Your task to perform on an android device: make emails show in primary in the gmail app Image 0: 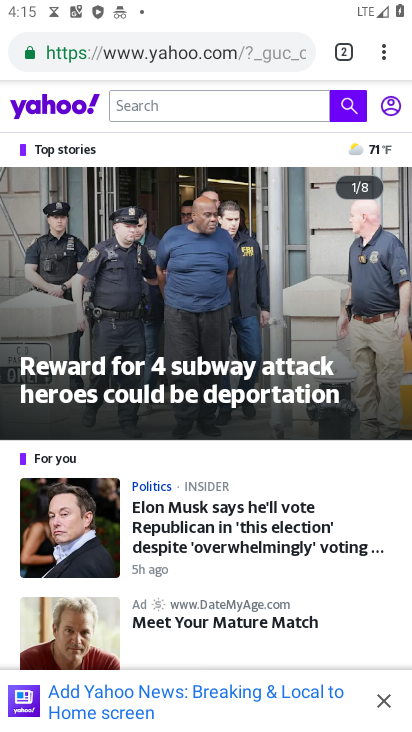
Step 0: press back button
Your task to perform on an android device: make emails show in primary in the gmail app Image 1: 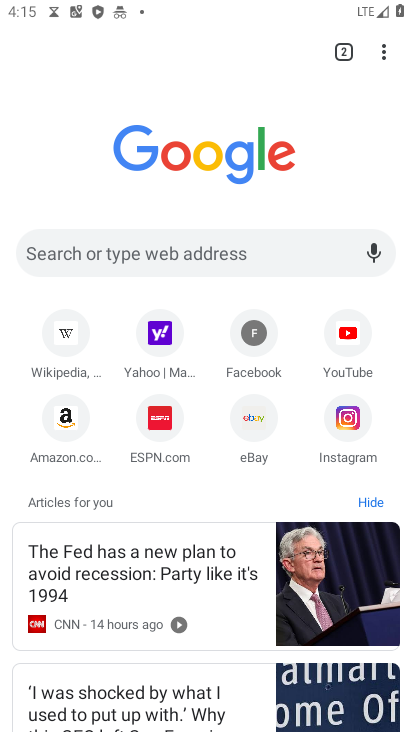
Step 1: press home button
Your task to perform on an android device: make emails show in primary in the gmail app Image 2: 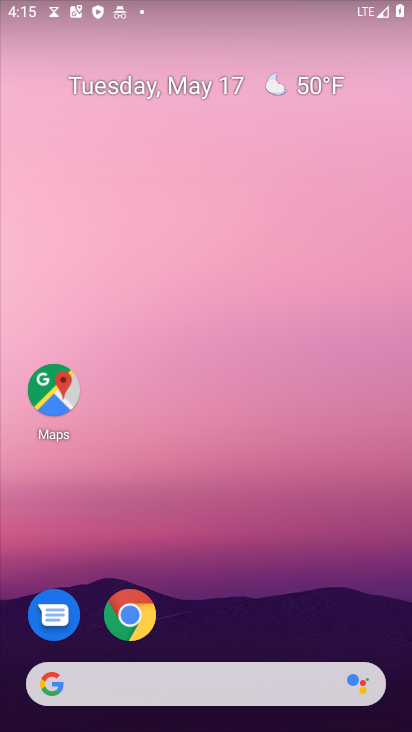
Step 2: drag from (277, 568) to (181, 184)
Your task to perform on an android device: make emails show in primary in the gmail app Image 3: 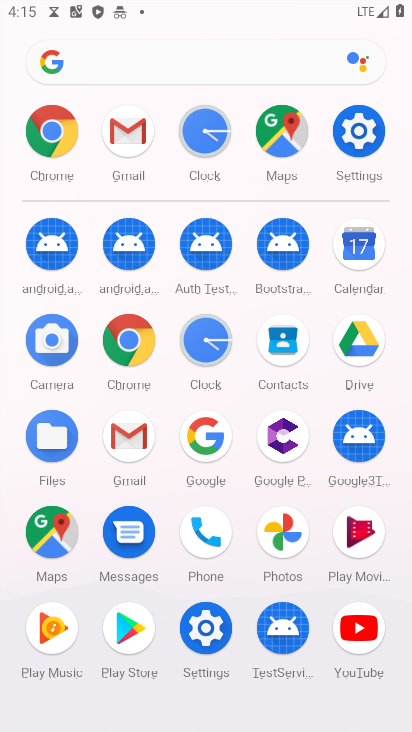
Step 3: click (128, 437)
Your task to perform on an android device: make emails show in primary in the gmail app Image 4: 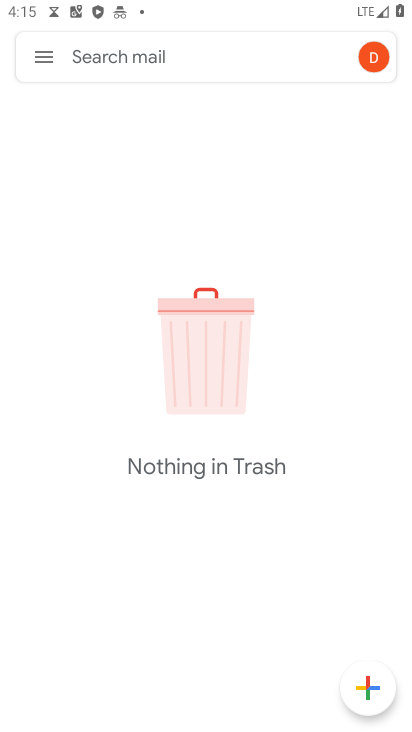
Step 4: click (36, 49)
Your task to perform on an android device: make emails show in primary in the gmail app Image 5: 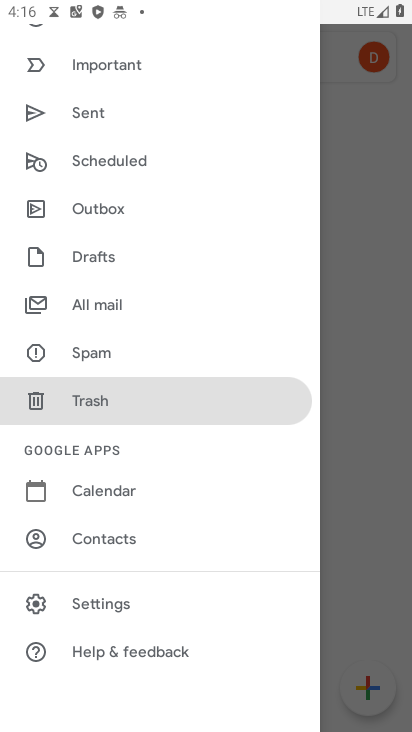
Step 5: click (99, 612)
Your task to perform on an android device: make emails show in primary in the gmail app Image 6: 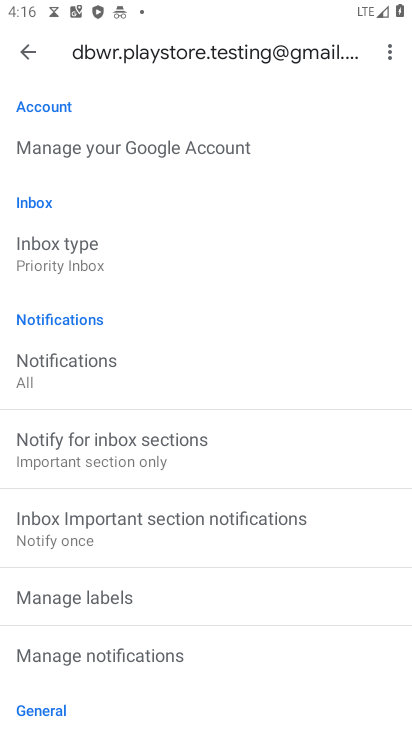
Step 6: click (57, 254)
Your task to perform on an android device: make emails show in primary in the gmail app Image 7: 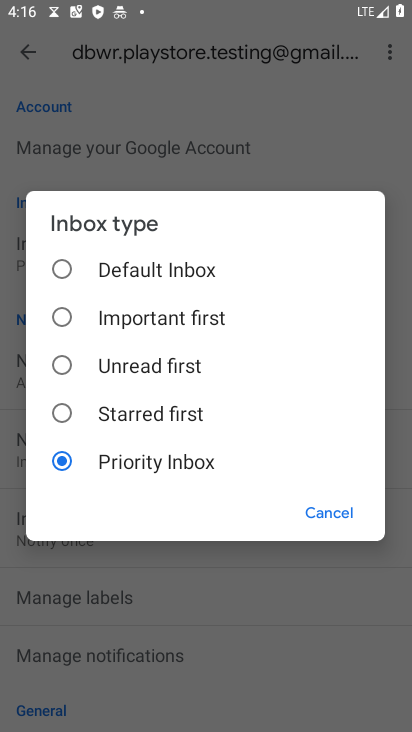
Step 7: click (65, 274)
Your task to perform on an android device: make emails show in primary in the gmail app Image 8: 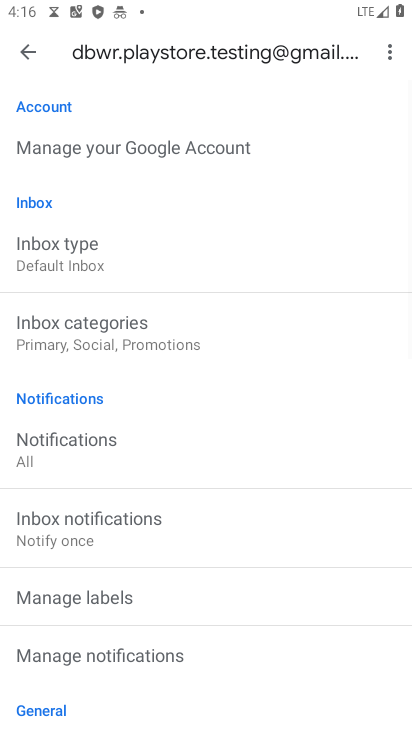
Step 8: click (82, 334)
Your task to perform on an android device: make emails show in primary in the gmail app Image 9: 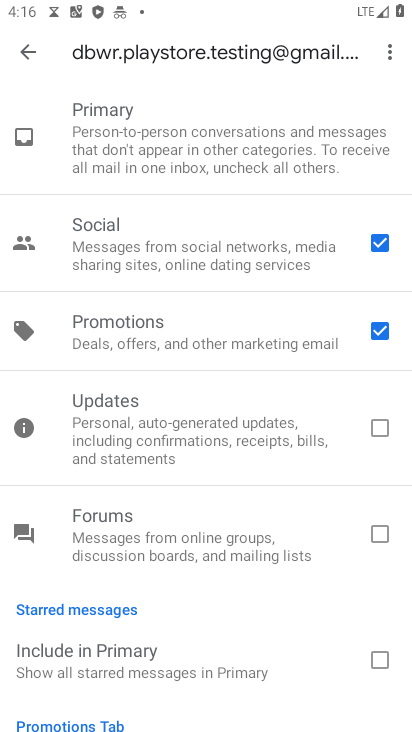
Step 9: click (105, 148)
Your task to perform on an android device: make emails show in primary in the gmail app Image 10: 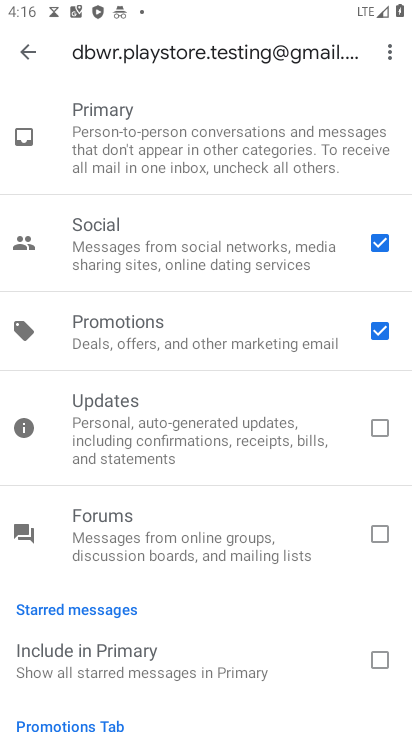
Step 10: task complete